Your task to perform on an android device: Open Chrome and go to the settings page Image 0: 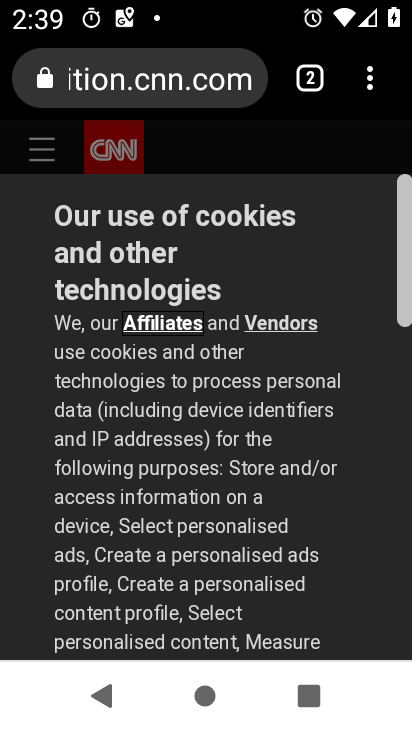
Step 0: press home button
Your task to perform on an android device: Open Chrome and go to the settings page Image 1: 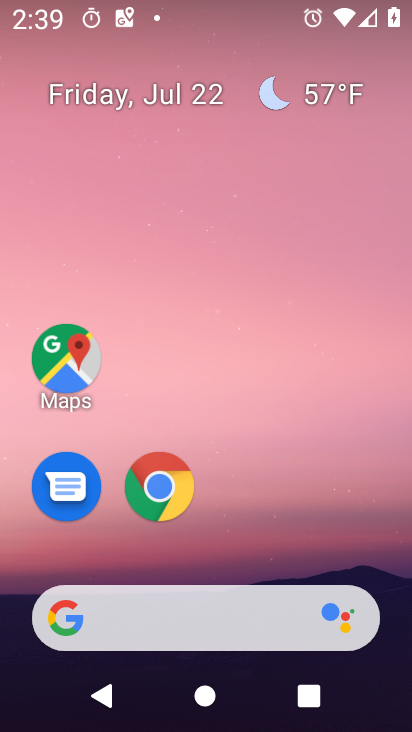
Step 1: drag from (380, 543) to (374, 235)
Your task to perform on an android device: Open Chrome and go to the settings page Image 2: 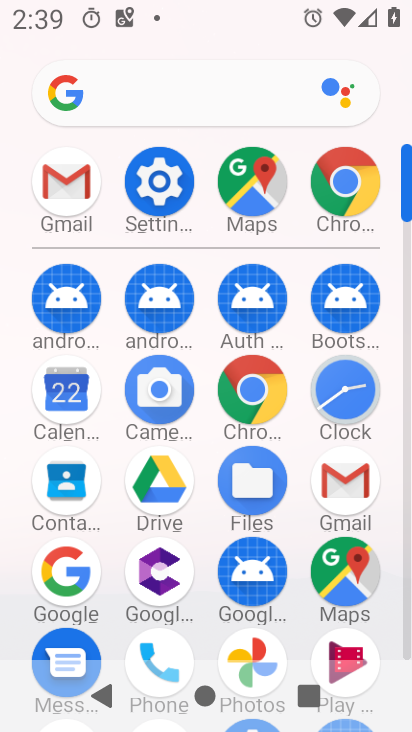
Step 2: click (261, 393)
Your task to perform on an android device: Open Chrome and go to the settings page Image 3: 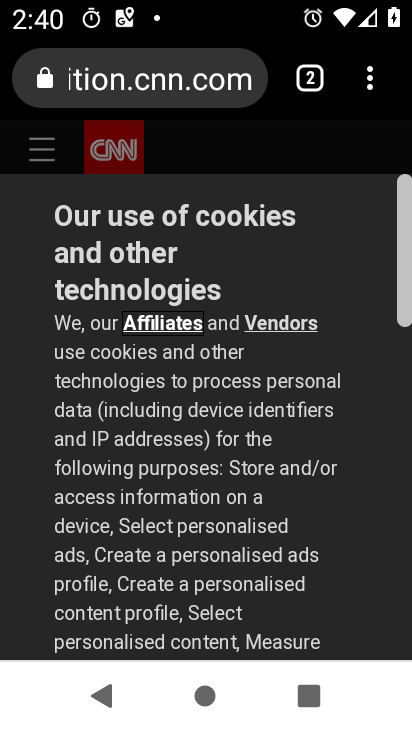
Step 3: click (371, 89)
Your task to perform on an android device: Open Chrome and go to the settings page Image 4: 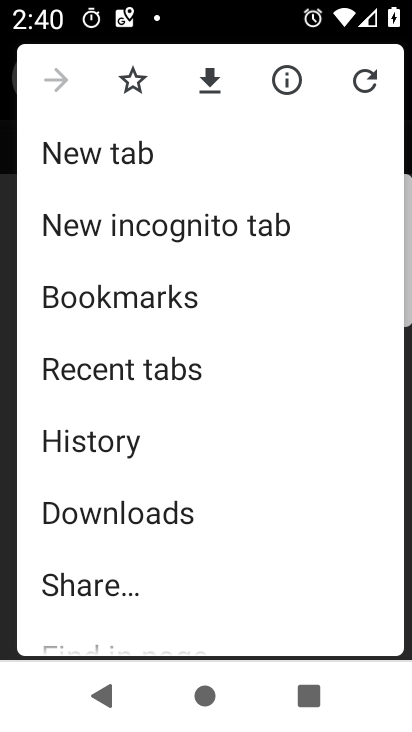
Step 4: drag from (326, 426) to (326, 334)
Your task to perform on an android device: Open Chrome and go to the settings page Image 5: 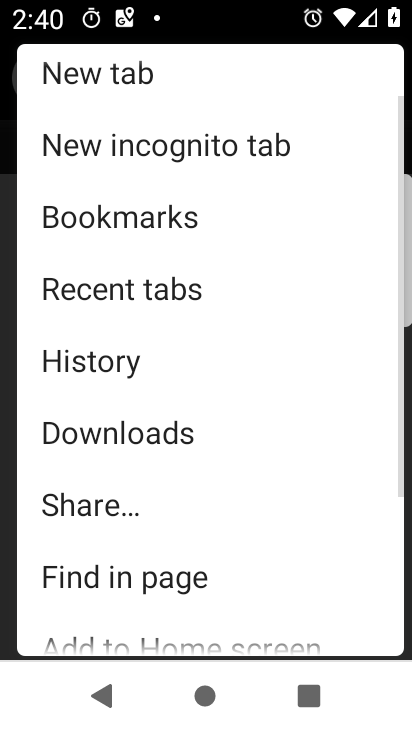
Step 5: drag from (333, 479) to (334, 381)
Your task to perform on an android device: Open Chrome and go to the settings page Image 6: 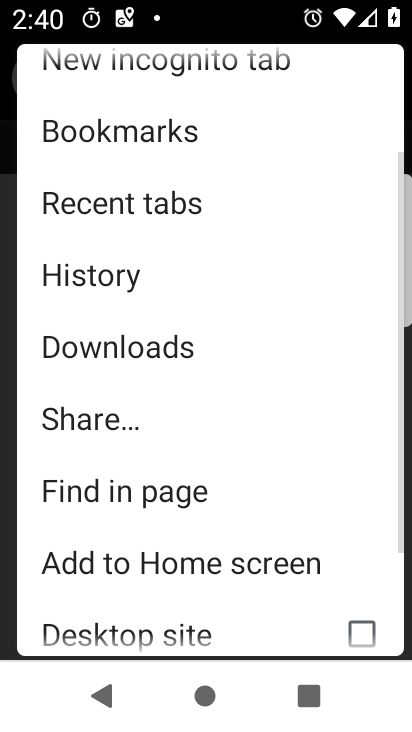
Step 6: drag from (323, 483) to (312, 372)
Your task to perform on an android device: Open Chrome and go to the settings page Image 7: 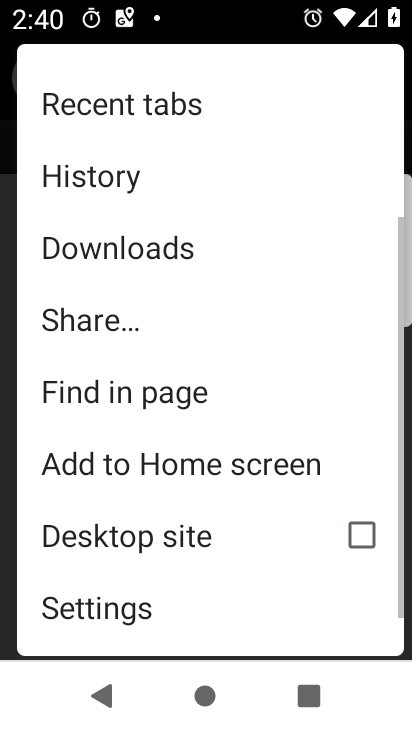
Step 7: drag from (273, 521) to (215, 536)
Your task to perform on an android device: Open Chrome and go to the settings page Image 8: 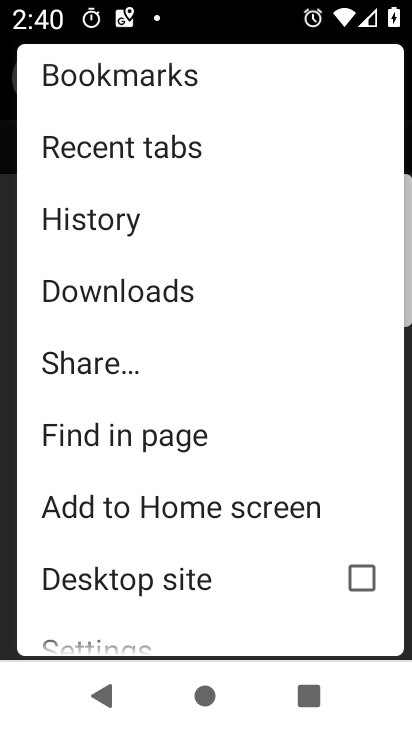
Step 8: drag from (264, 552) to (281, 406)
Your task to perform on an android device: Open Chrome and go to the settings page Image 9: 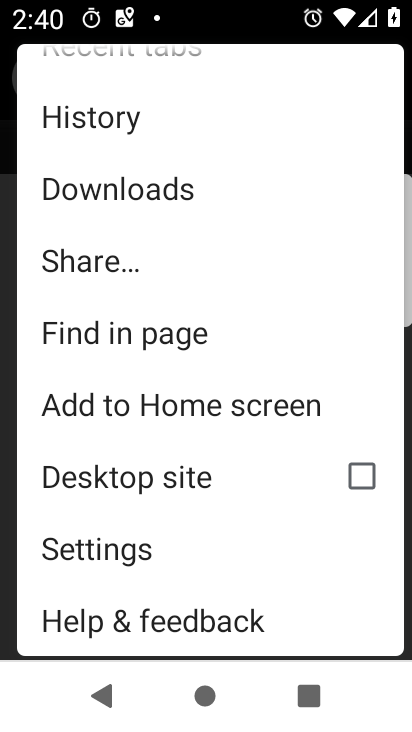
Step 9: click (253, 558)
Your task to perform on an android device: Open Chrome and go to the settings page Image 10: 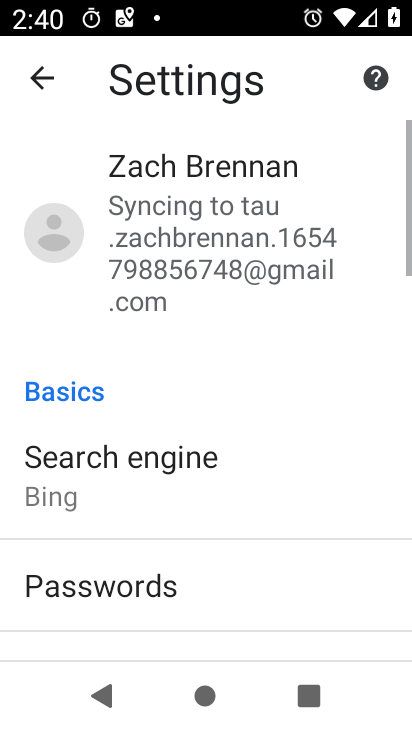
Step 10: task complete